Your task to perform on an android device: Open the Play Movies app and select the watchlist tab. Image 0: 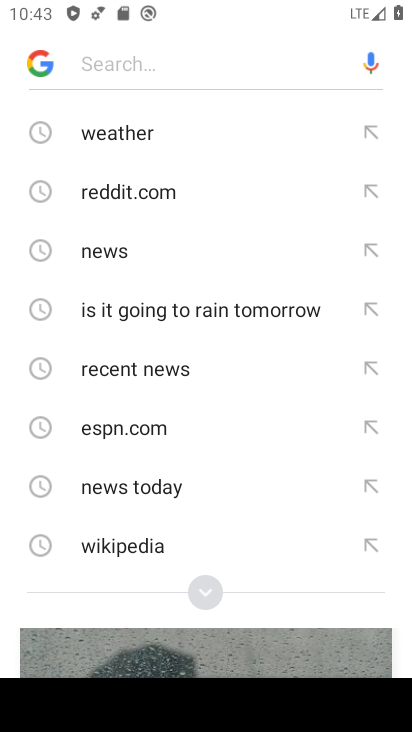
Step 0: press home button
Your task to perform on an android device: Open the Play Movies app and select the watchlist tab. Image 1: 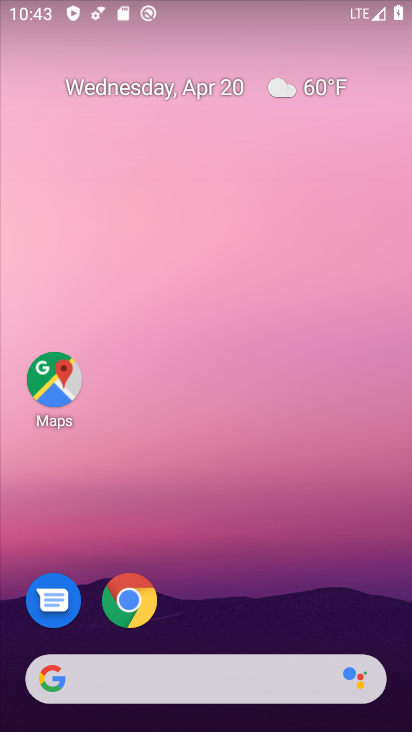
Step 1: drag from (308, 559) to (337, 204)
Your task to perform on an android device: Open the Play Movies app and select the watchlist tab. Image 2: 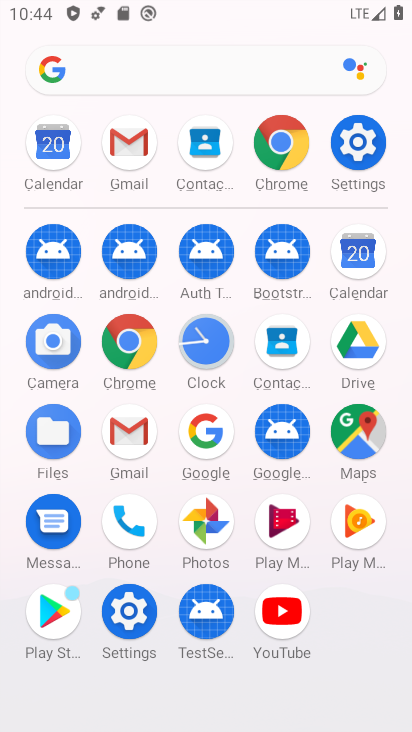
Step 2: click (296, 524)
Your task to perform on an android device: Open the Play Movies app and select the watchlist tab. Image 3: 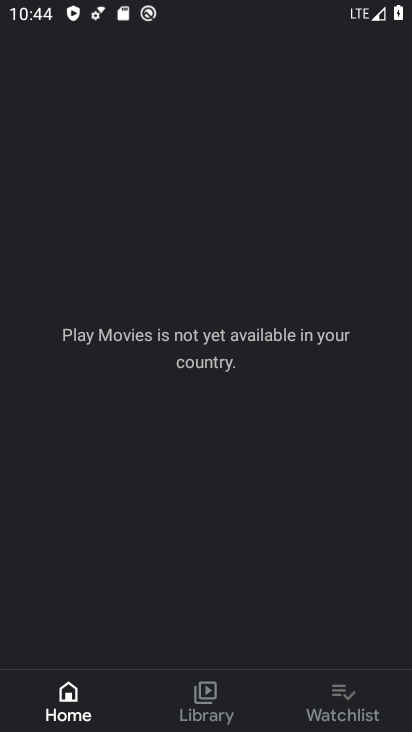
Step 3: click (356, 724)
Your task to perform on an android device: Open the Play Movies app and select the watchlist tab. Image 4: 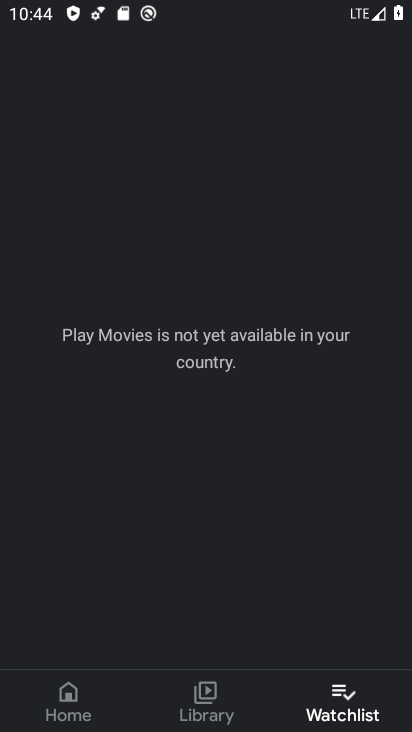
Step 4: task complete